Your task to perform on an android device: change the clock display to show seconds Image 0: 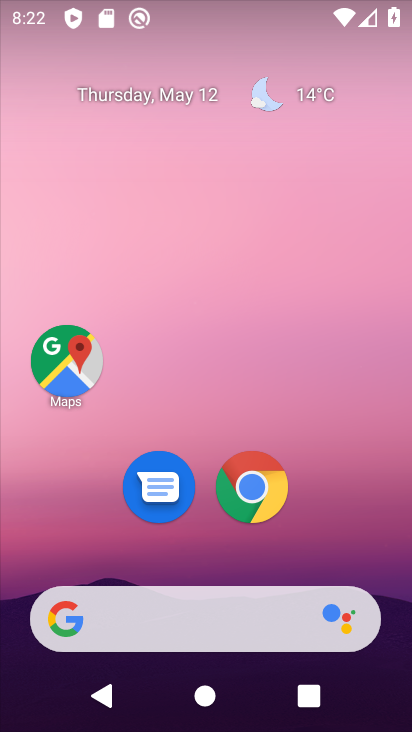
Step 0: drag from (4, 710) to (255, 142)
Your task to perform on an android device: change the clock display to show seconds Image 1: 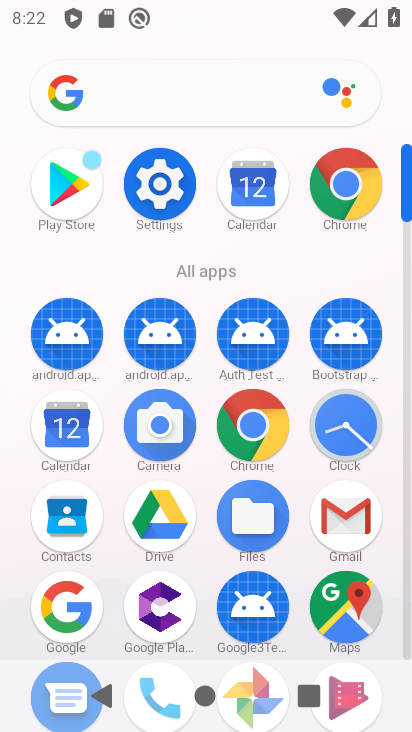
Step 1: click (359, 417)
Your task to perform on an android device: change the clock display to show seconds Image 2: 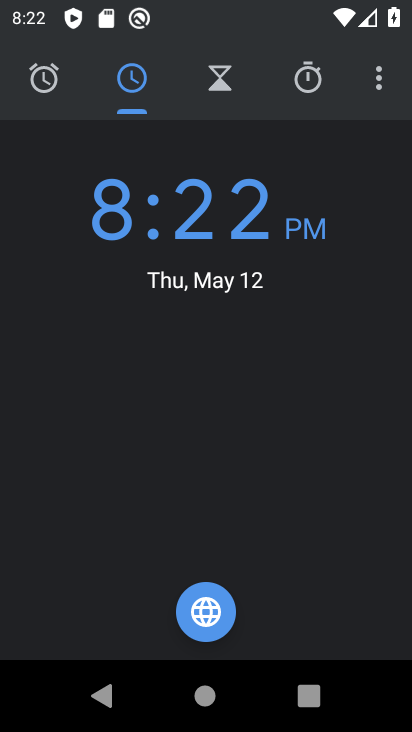
Step 2: click (368, 74)
Your task to perform on an android device: change the clock display to show seconds Image 3: 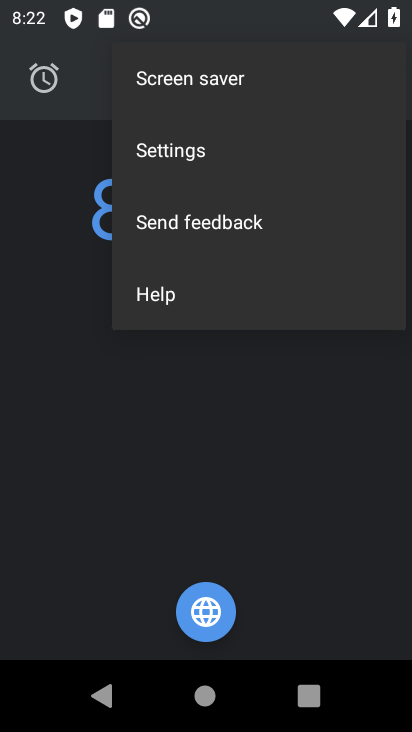
Step 3: click (251, 155)
Your task to perform on an android device: change the clock display to show seconds Image 4: 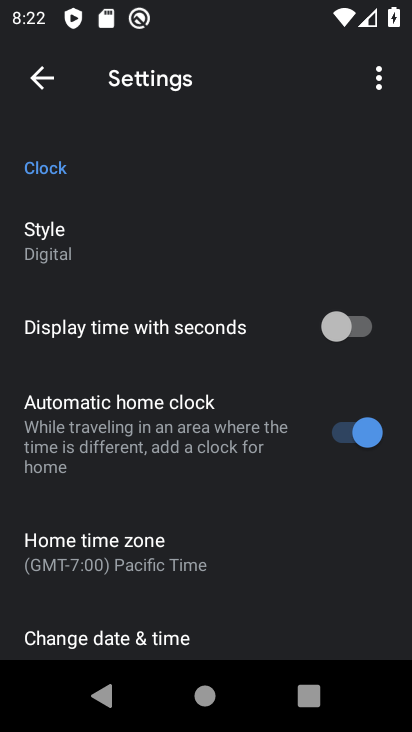
Step 4: click (340, 326)
Your task to perform on an android device: change the clock display to show seconds Image 5: 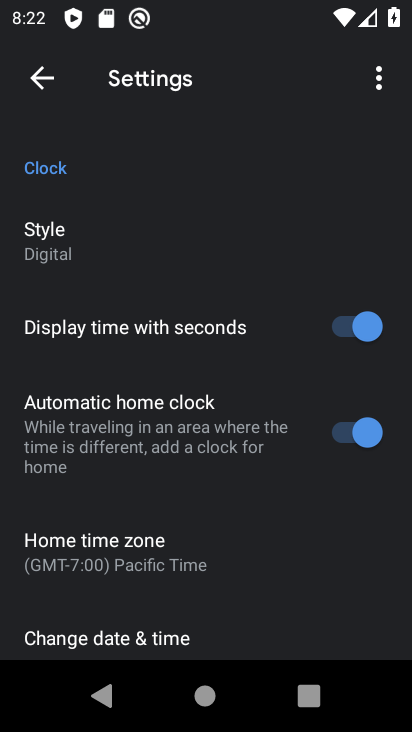
Step 5: task complete